Your task to perform on an android device: Open maps Image 0: 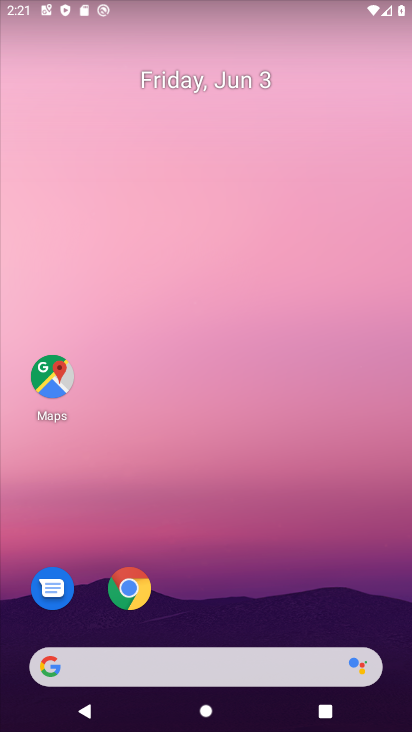
Step 0: drag from (213, 624) to (286, 177)
Your task to perform on an android device: Open maps Image 1: 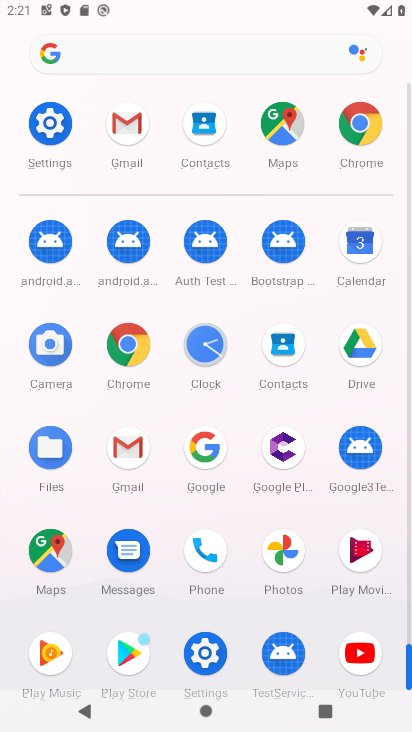
Step 1: click (46, 571)
Your task to perform on an android device: Open maps Image 2: 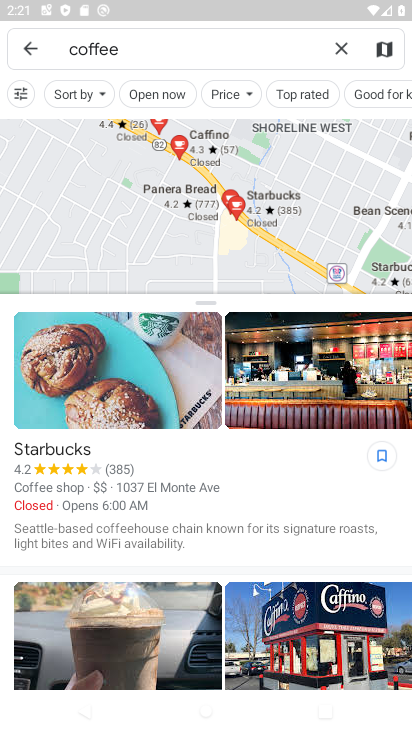
Step 2: task complete